Your task to perform on an android device: turn on sleep mode Image 0: 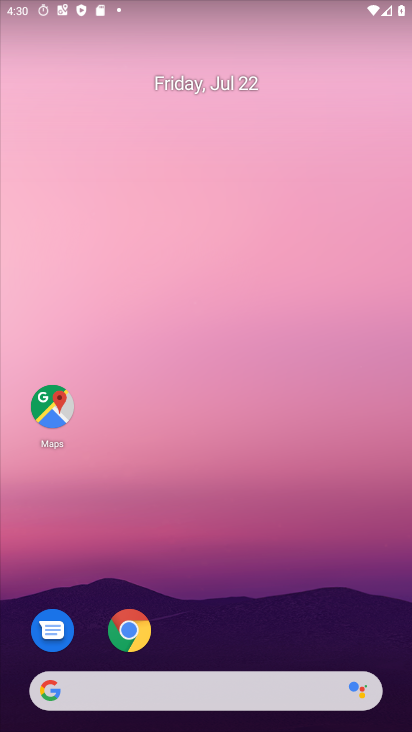
Step 0: drag from (273, 678) to (273, 0)
Your task to perform on an android device: turn on sleep mode Image 1: 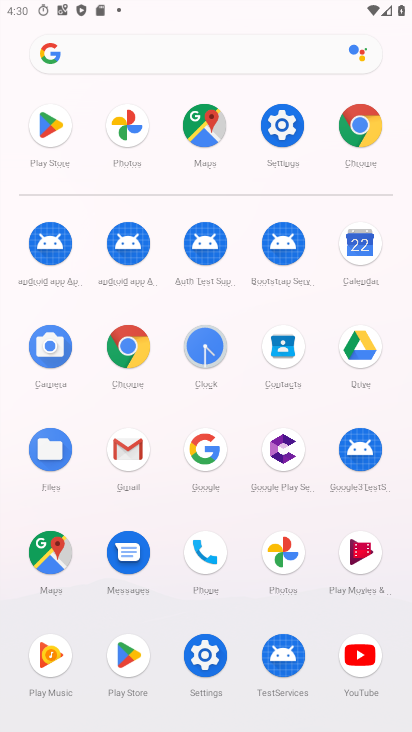
Step 1: click (289, 125)
Your task to perform on an android device: turn on sleep mode Image 2: 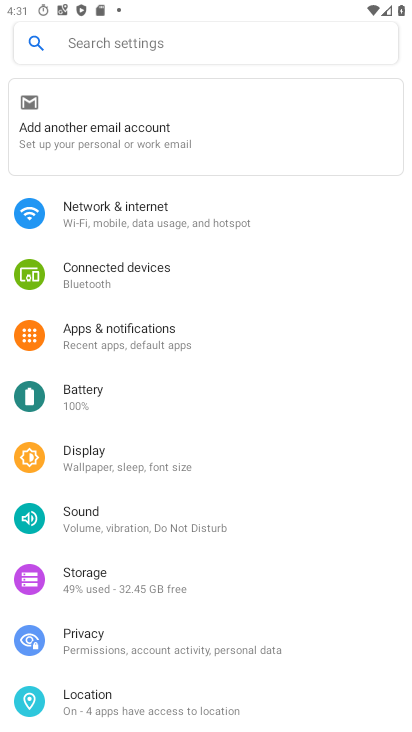
Step 2: click (159, 461)
Your task to perform on an android device: turn on sleep mode Image 3: 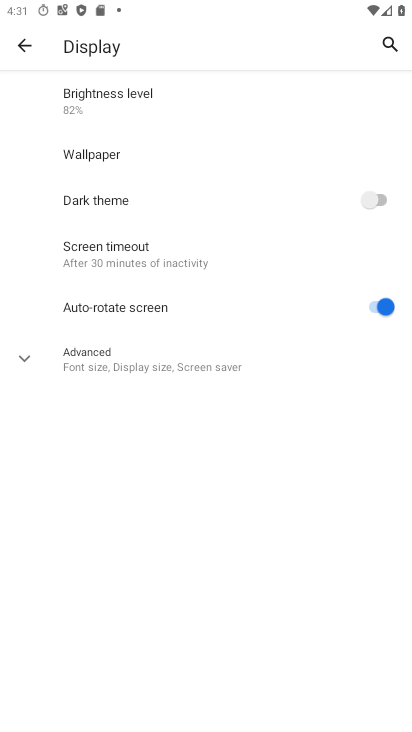
Step 3: task complete